Your task to perform on an android device: Search for sushi restaurants on Maps Image 0: 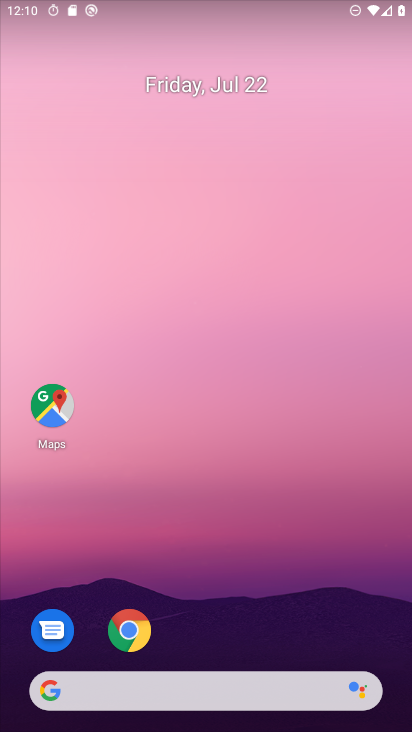
Step 0: click (49, 408)
Your task to perform on an android device: Search for sushi restaurants on Maps Image 1: 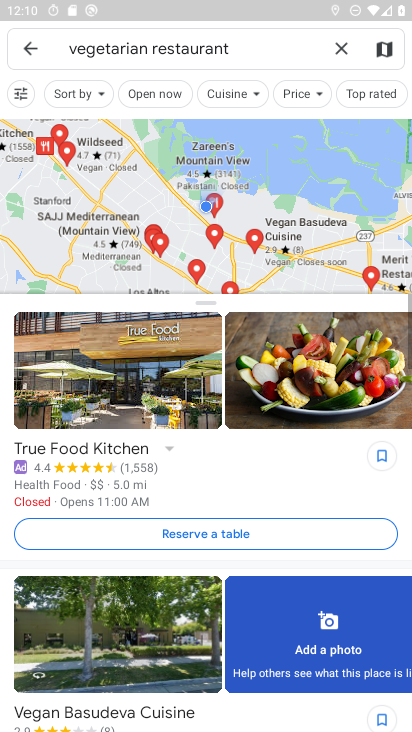
Step 1: click (22, 44)
Your task to perform on an android device: Search for sushi restaurants on Maps Image 2: 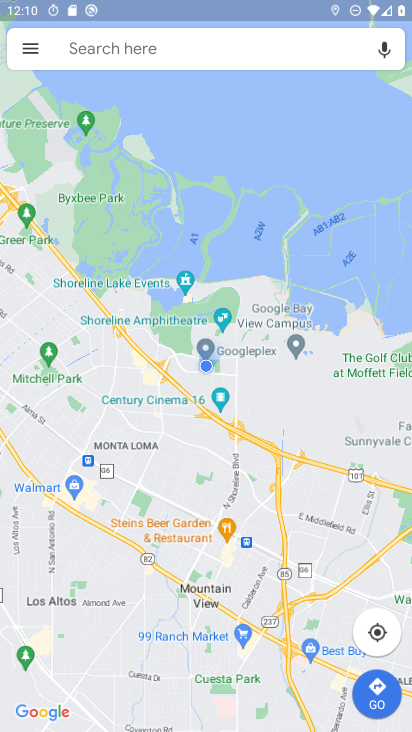
Step 2: type "sushi restaurants"
Your task to perform on an android device: Search for sushi restaurants on Maps Image 3: 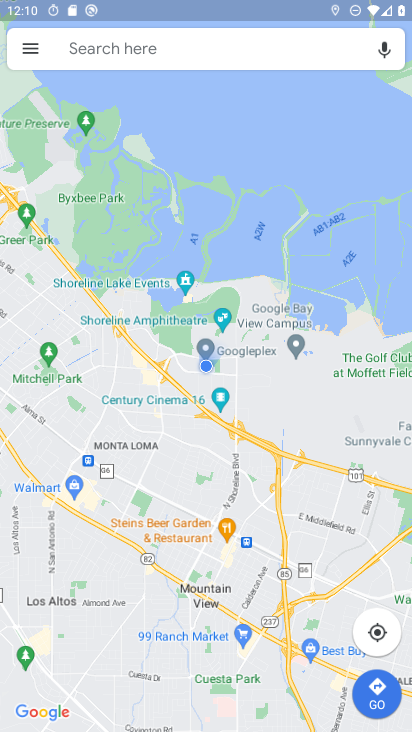
Step 3: click (94, 58)
Your task to perform on an android device: Search for sushi restaurants on Maps Image 4: 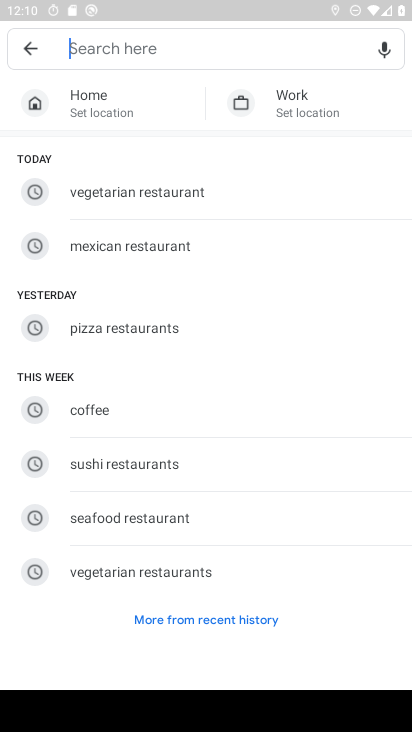
Step 4: click (128, 465)
Your task to perform on an android device: Search for sushi restaurants on Maps Image 5: 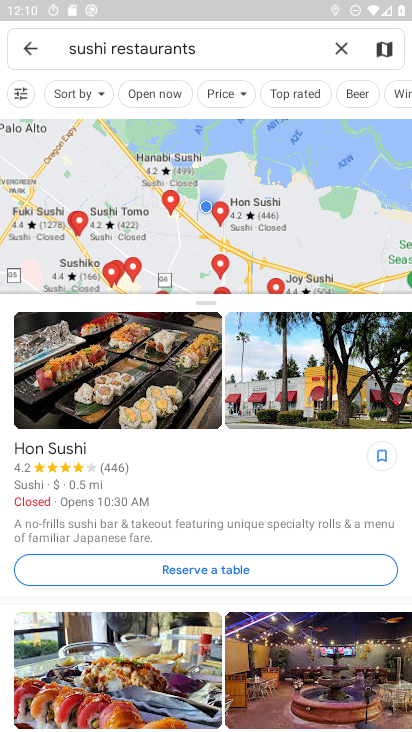
Step 5: task complete